Your task to perform on an android device: toggle sleep mode Image 0: 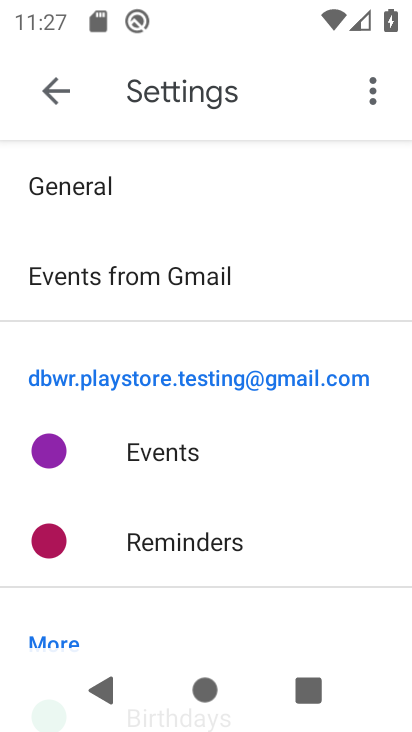
Step 0: press home button
Your task to perform on an android device: toggle sleep mode Image 1: 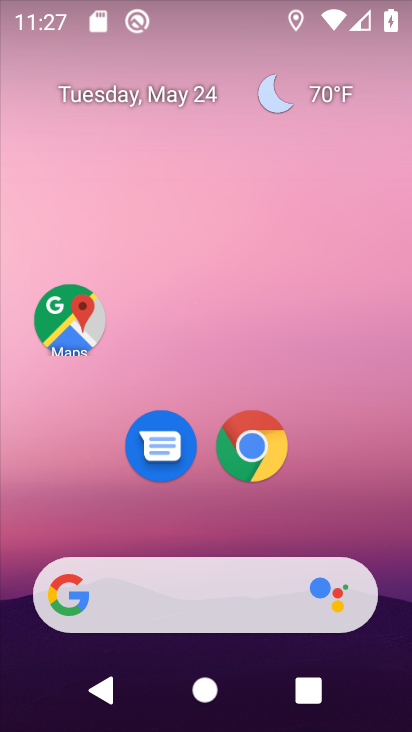
Step 1: drag from (174, 527) to (241, 201)
Your task to perform on an android device: toggle sleep mode Image 2: 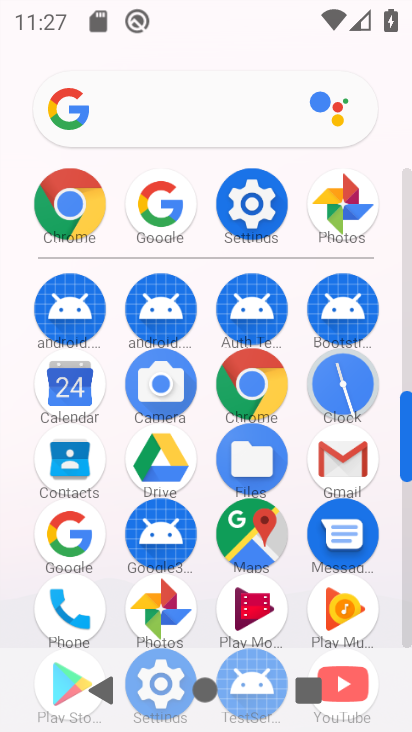
Step 2: click (249, 223)
Your task to perform on an android device: toggle sleep mode Image 3: 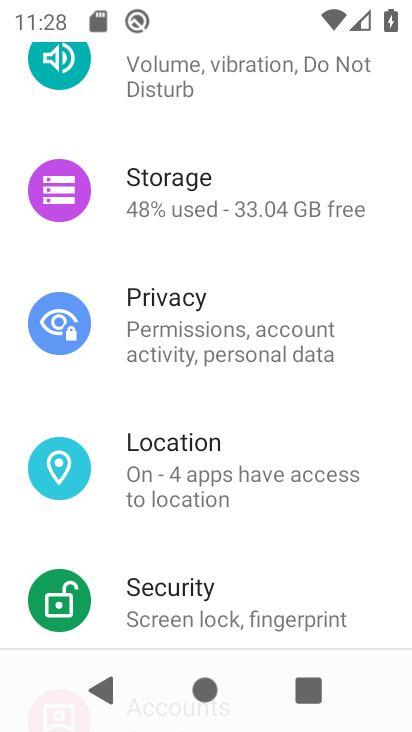
Step 3: task complete